Your task to perform on an android device: Check the news Image 0: 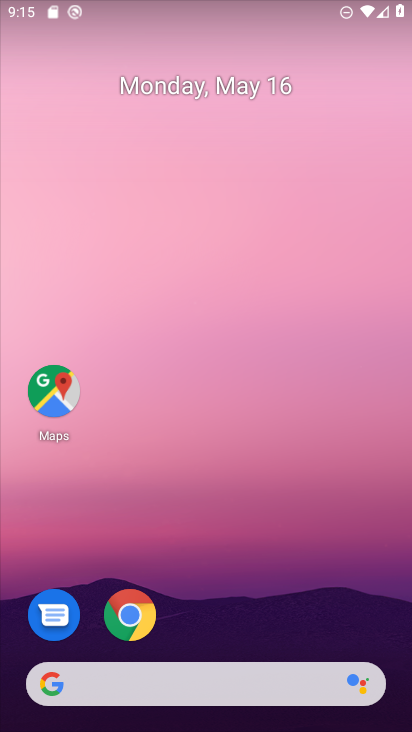
Step 0: click (195, 683)
Your task to perform on an android device: Check the news Image 1: 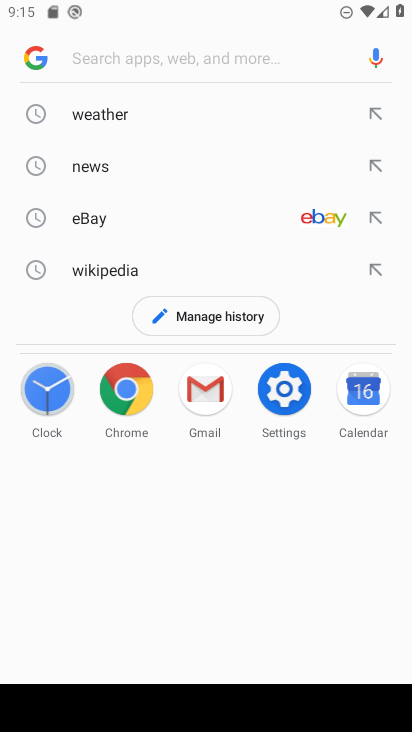
Step 1: click (79, 161)
Your task to perform on an android device: Check the news Image 2: 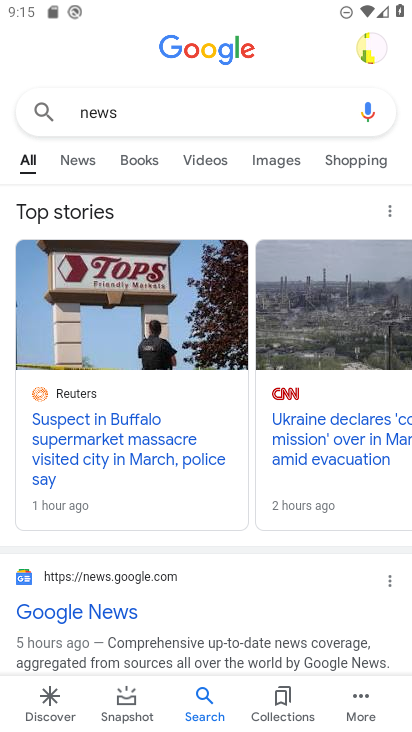
Step 2: task complete